Your task to perform on an android device: uninstall "Mercado Libre" Image 0: 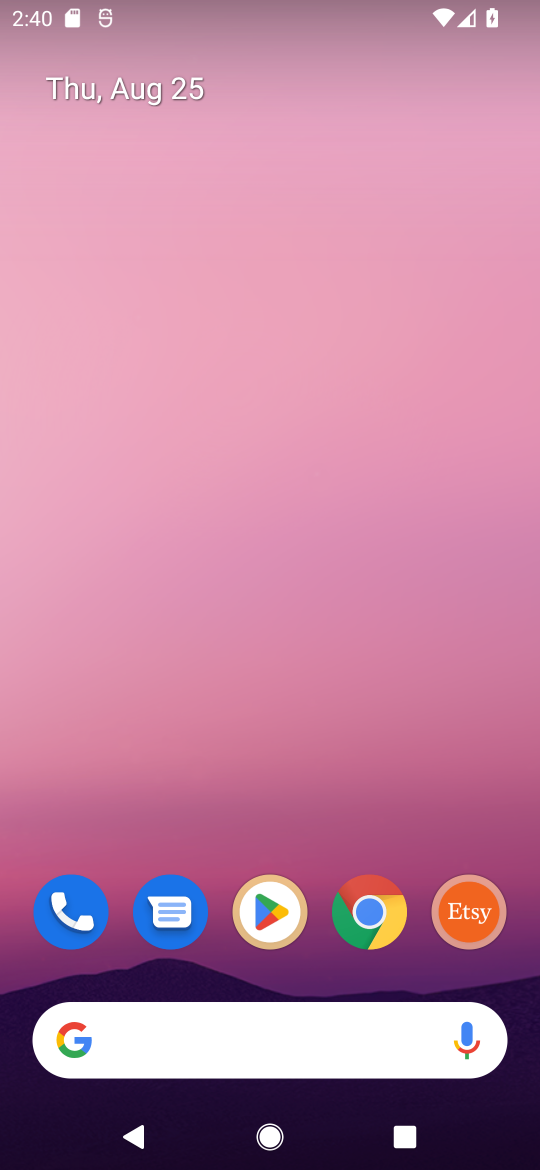
Step 0: drag from (196, 1022) to (184, 480)
Your task to perform on an android device: uninstall "Mercado Libre" Image 1: 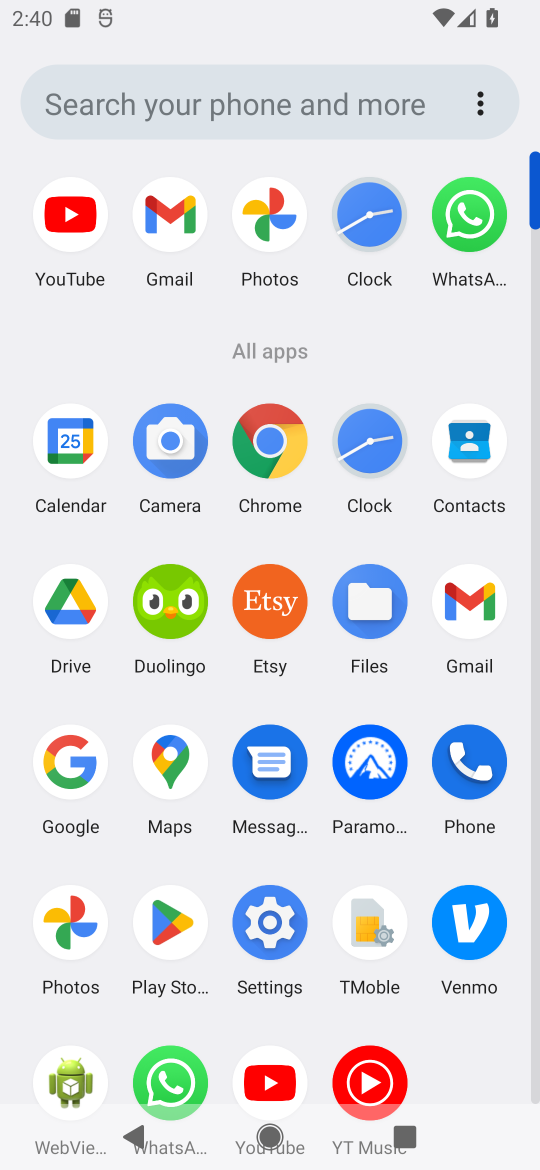
Step 1: click (169, 930)
Your task to perform on an android device: uninstall "Mercado Libre" Image 2: 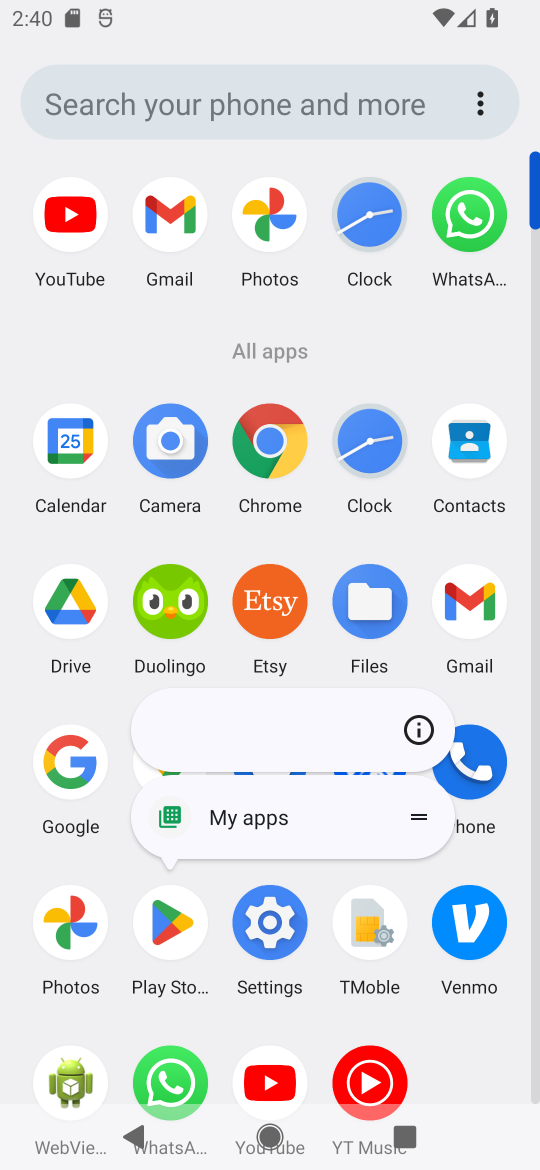
Step 2: click (158, 928)
Your task to perform on an android device: uninstall "Mercado Libre" Image 3: 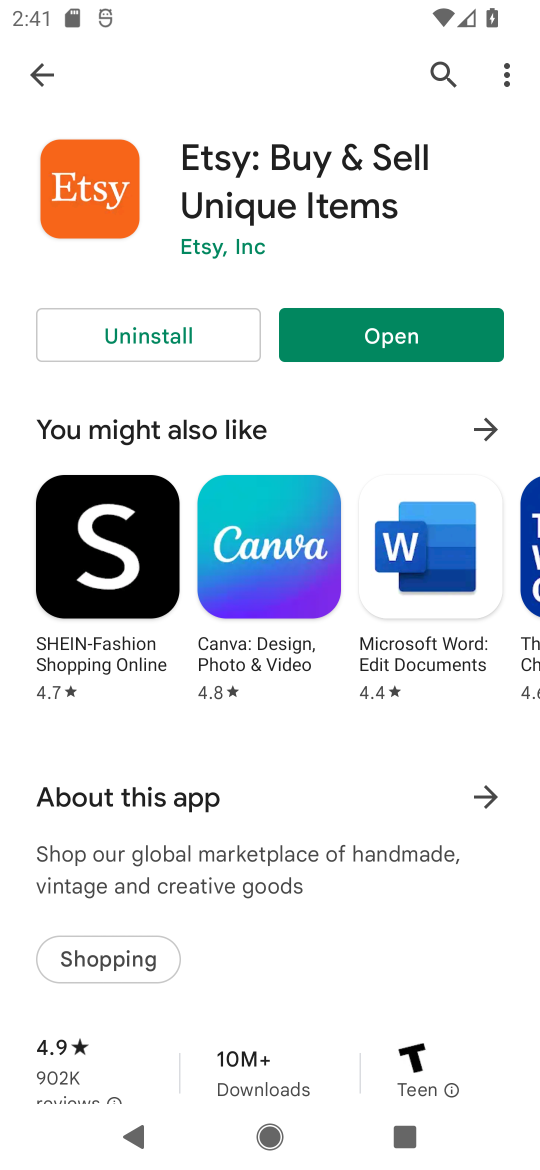
Step 3: click (434, 68)
Your task to perform on an android device: uninstall "Mercado Libre" Image 4: 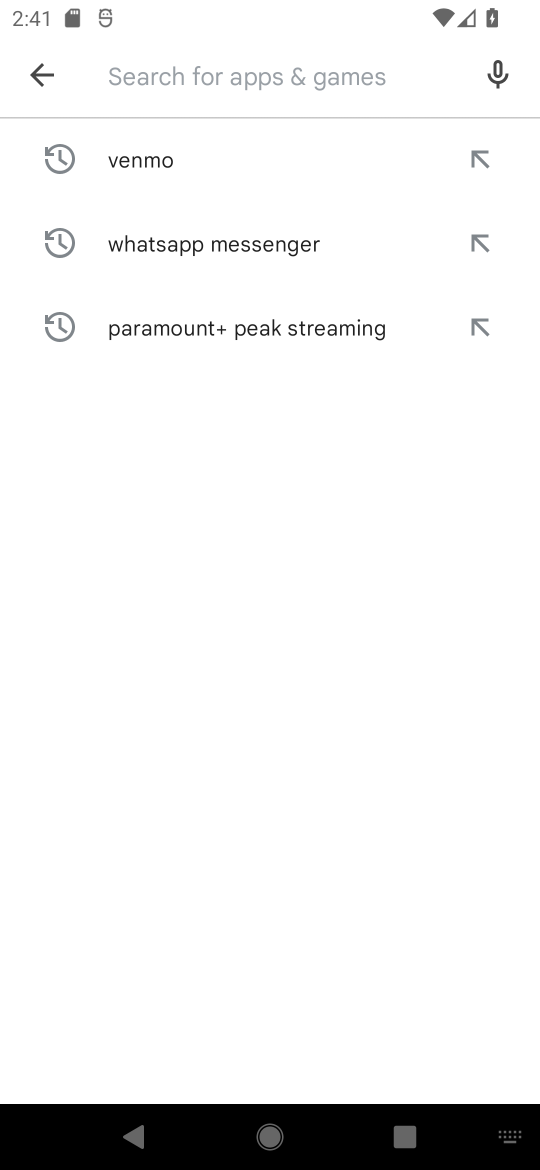
Step 4: type "Mercado Libre"
Your task to perform on an android device: uninstall "Mercado Libre" Image 5: 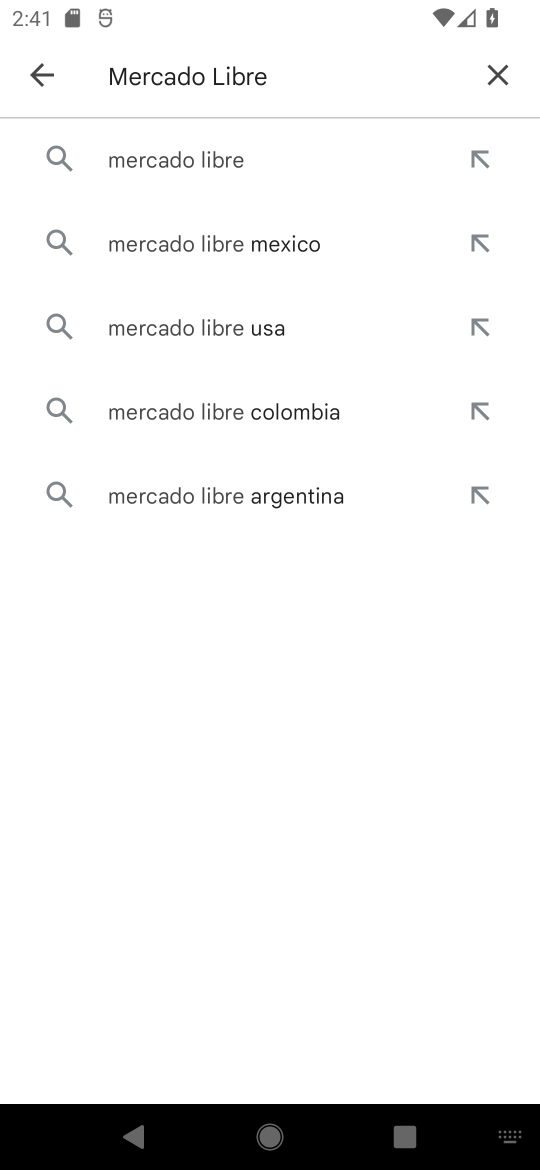
Step 5: click (166, 169)
Your task to perform on an android device: uninstall "Mercado Libre" Image 6: 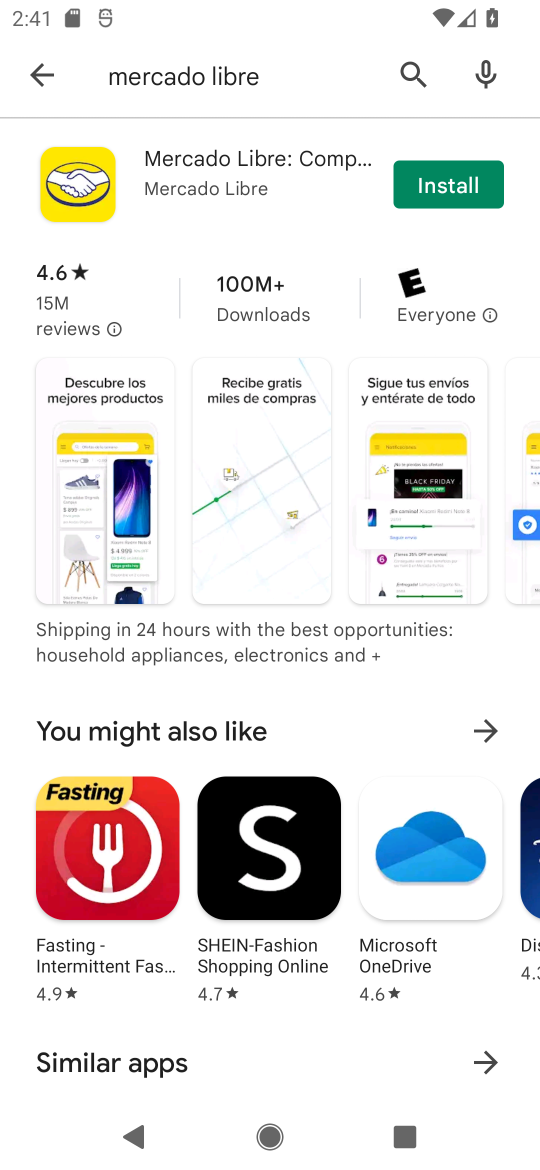
Step 6: click (446, 191)
Your task to perform on an android device: uninstall "Mercado Libre" Image 7: 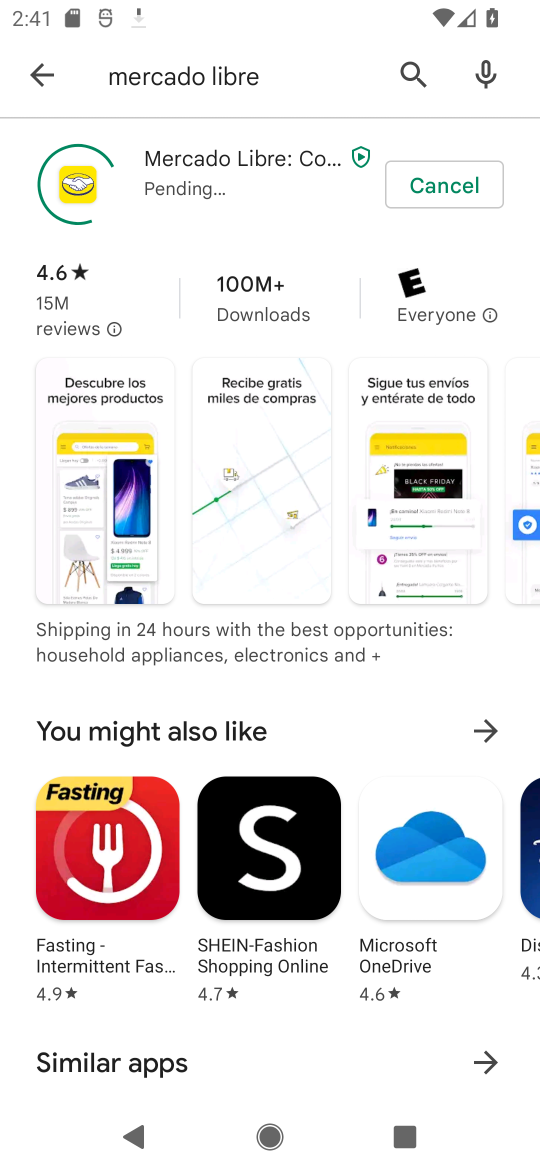
Step 7: click (433, 186)
Your task to perform on an android device: uninstall "Mercado Libre" Image 8: 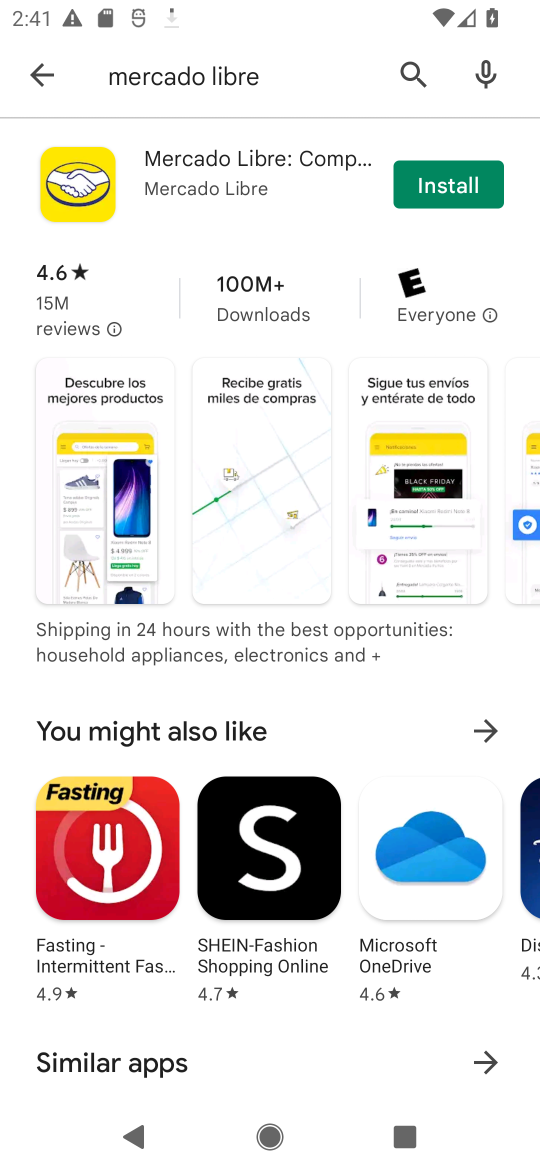
Step 8: task complete